Your task to perform on an android device: Go to sound settings Image 0: 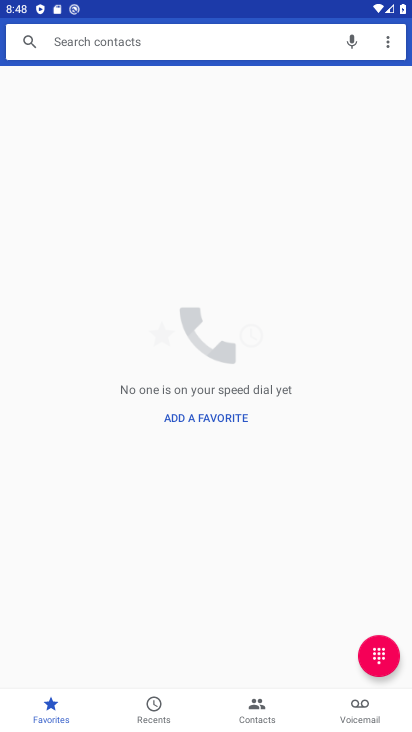
Step 0: press back button
Your task to perform on an android device: Go to sound settings Image 1: 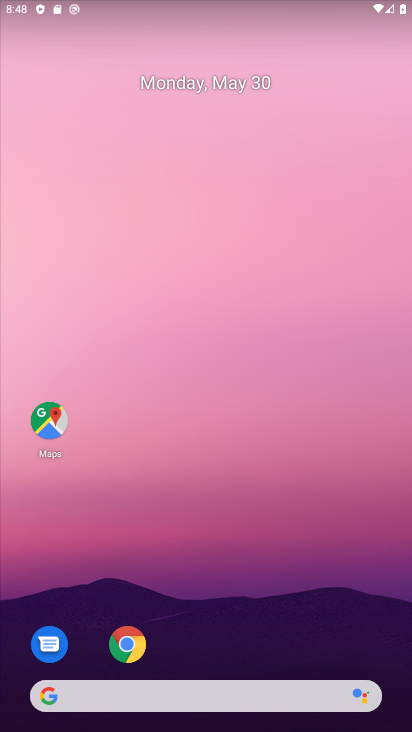
Step 1: drag from (271, 608) to (325, 82)
Your task to perform on an android device: Go to sound settings Image 2: 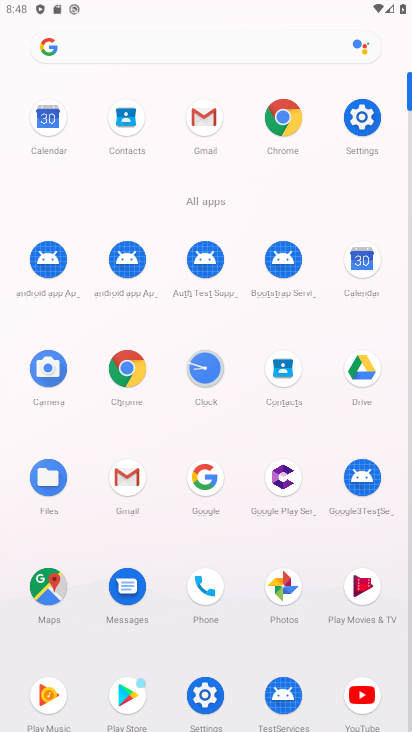
Step 2: click (352, 111)
Your task to perform on an android device: Go to sound settings Image 3: 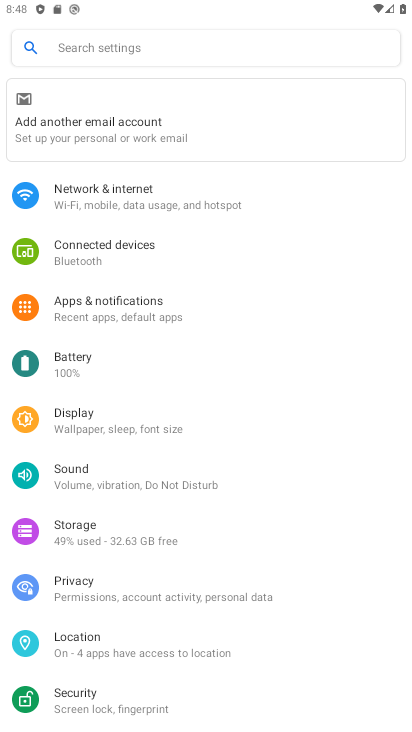
Step 3: click (69, 471)
Your task to perform on an android device: Go to sound settings Image 4: 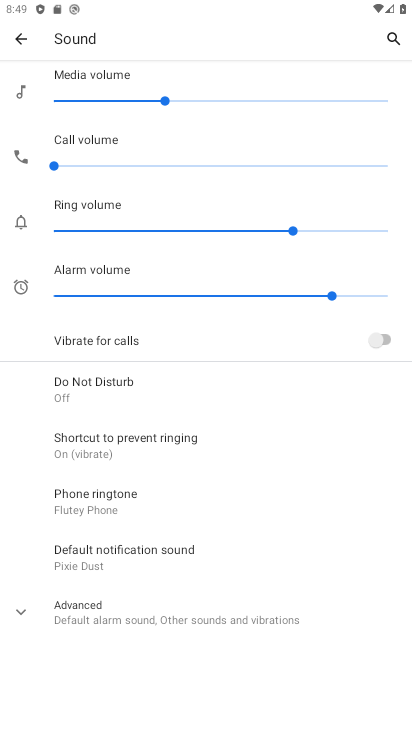
Step 4: task complete